Your task to perform on an android device: View the shopping cart on costco. Add "apple airpods pro" to the cart on costco, then select checkout. Image 0: 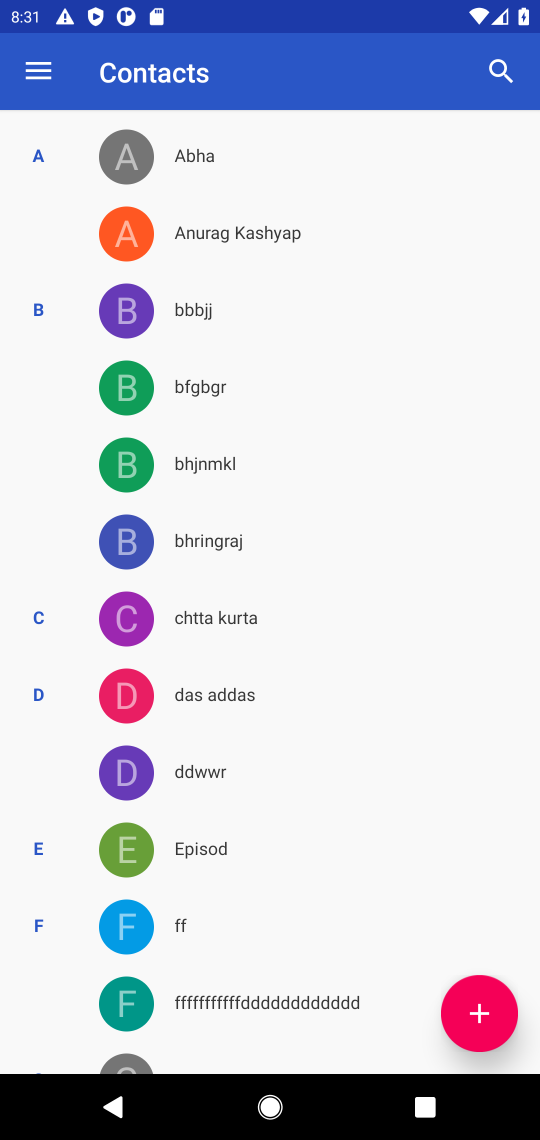
Step 0: press home button
Your task to perform on an android device: View the shopping cart on costco. Add "apple airpods pro" to the cart on costco, then select checkout. Image 1: 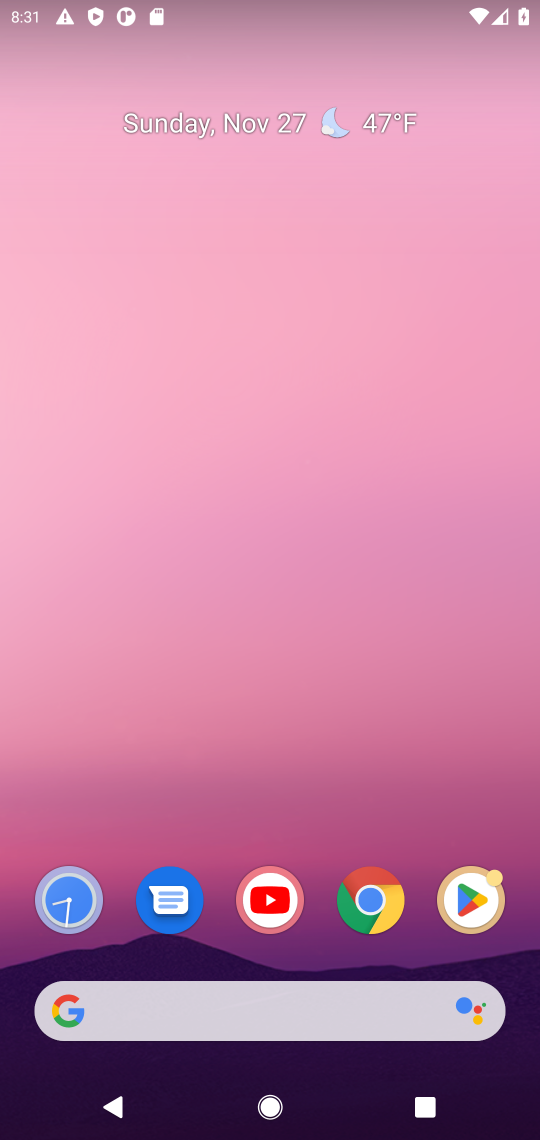
Step 1: click (372, 904)
Your task to perform on an android device: View the shopping cart on costco. Add "apple airpods pro" to the cart on costco, then select checkout. Image 2: 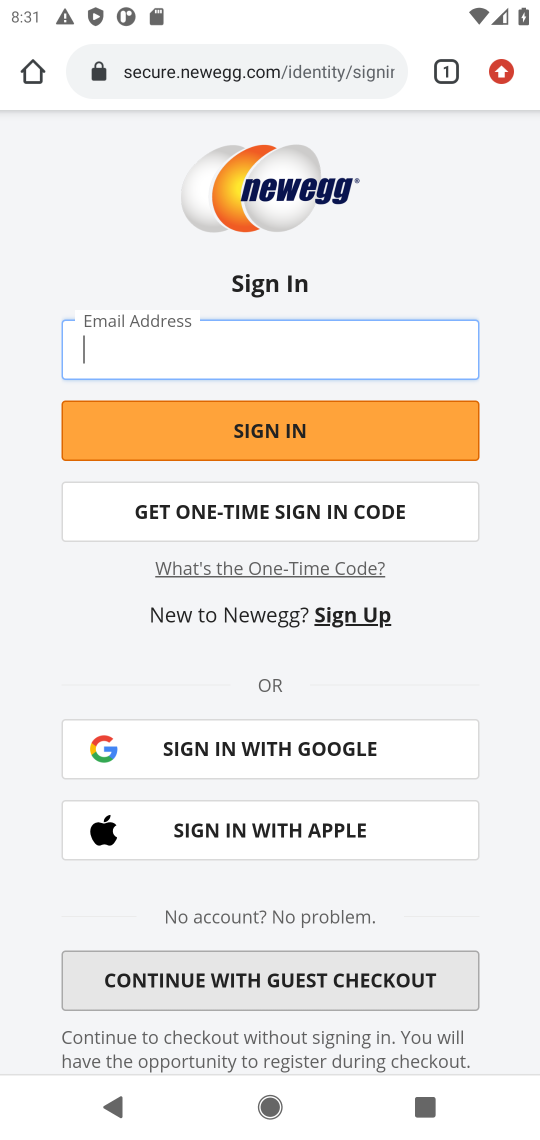
Step 2: click (168, 78)
Your task to perform on an android device: View the shopping cart on costco. Add "apple airpods pro" to the cart on costco, then select checkout. Image 3: 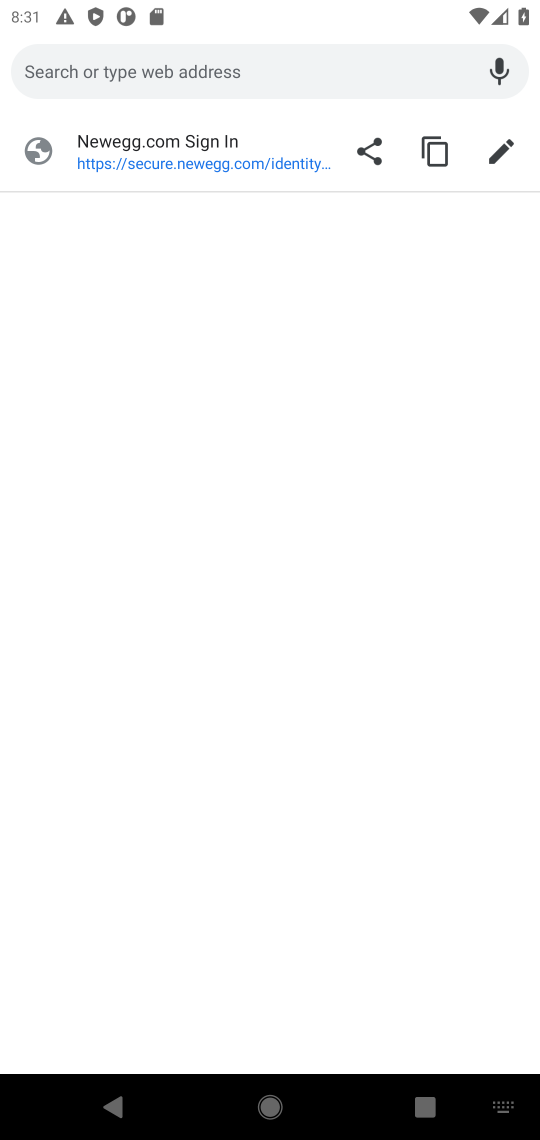
Step 3: type "costco.com"
Your task to perform on an android device: View the shopping cart on costco. Add "apple airpods pro" to the cart on costco, then select checkout. Image 4: 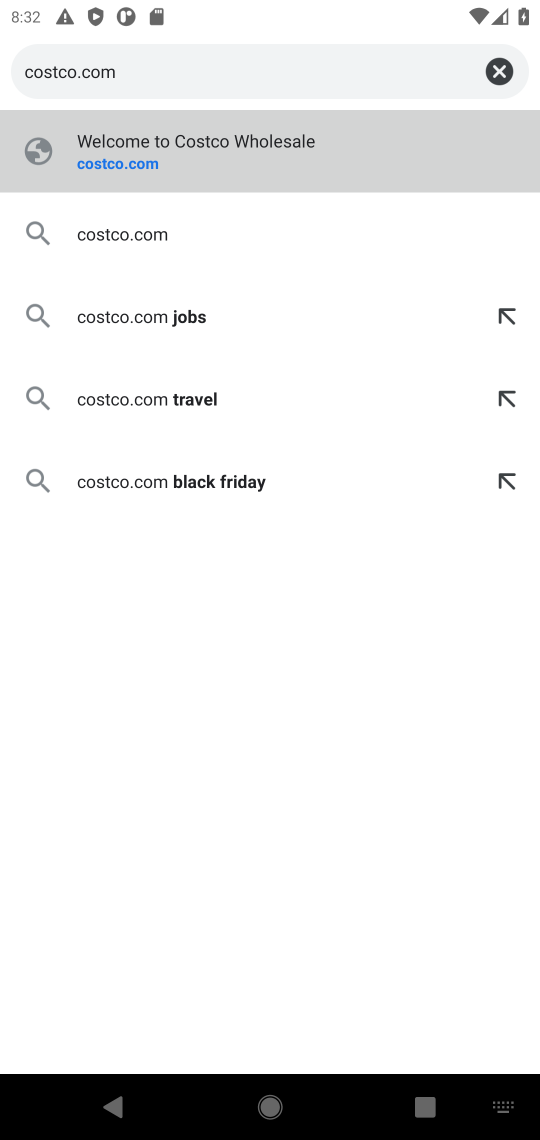
Step 4: click (95, 159)
Your task to perform on an android device: View the shopping cart on costco. Add "apple airpods pro" to the cart on costco, then select checkout. Image 5: 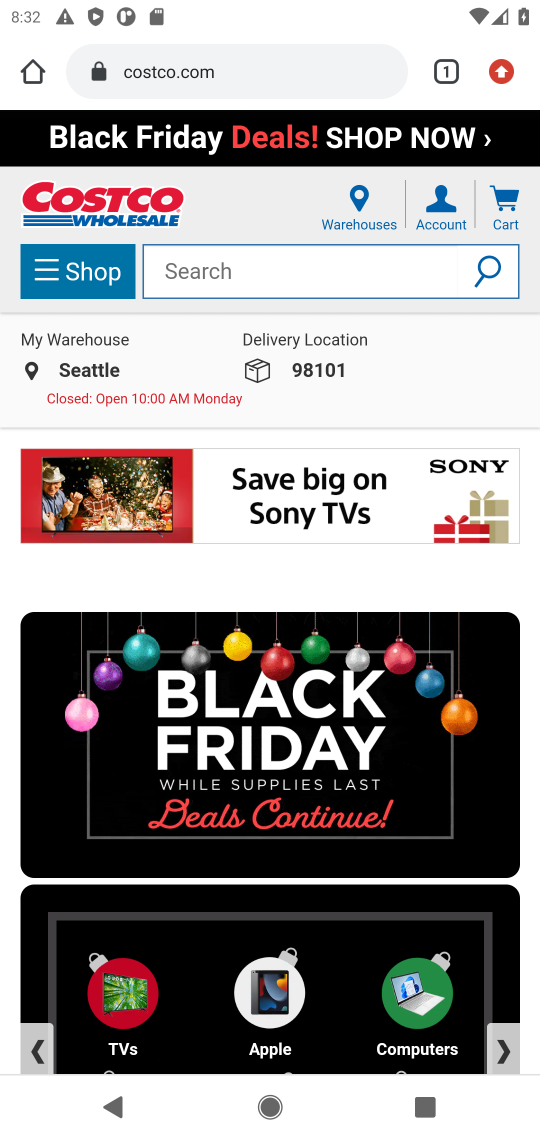
Step 5: click (490, 220)
Your task to perform on an android device: View the shopping cart on costco. Add "apple airpods pro" to the cart on costco, then select checkout. Image 6: 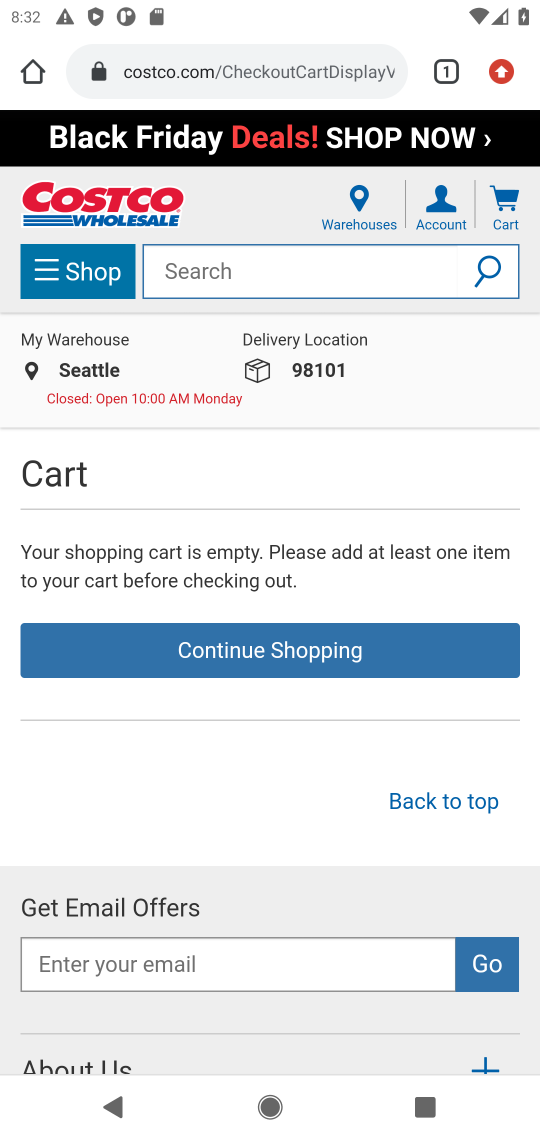
Step 6: click (242, 283)
Your task to perform on an android device: View the shopping cart on costco. Add "apple airpods pro" to the cart on costco, then select checkout. Image 7: 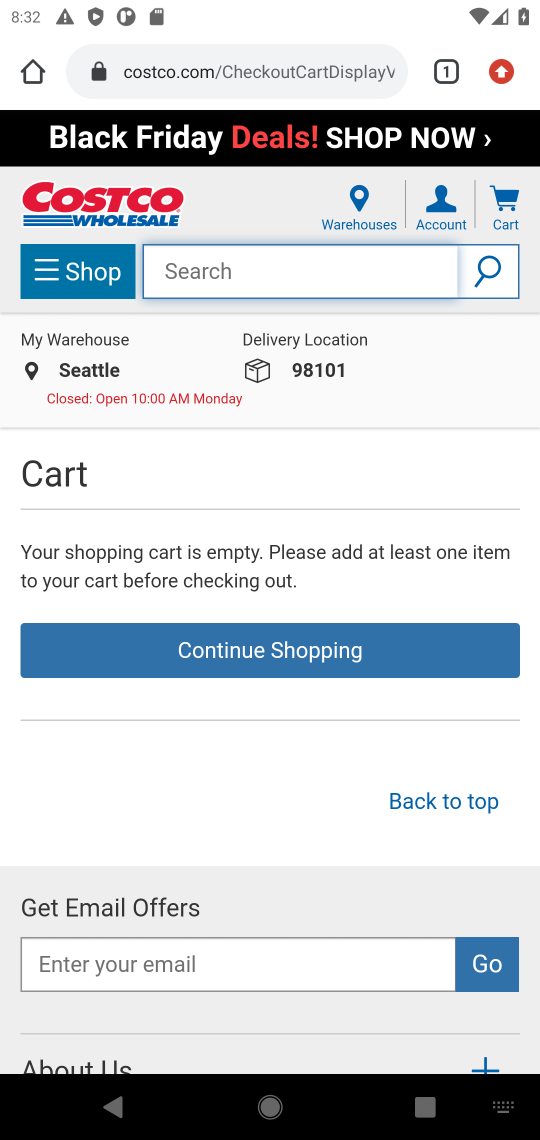
Step 7: type "apple airpods pro"
Your task to perform on an android device: View the shopping cart on costco. Add "apple airpods pro" to the cart on costco, then select checkout. Image 8: 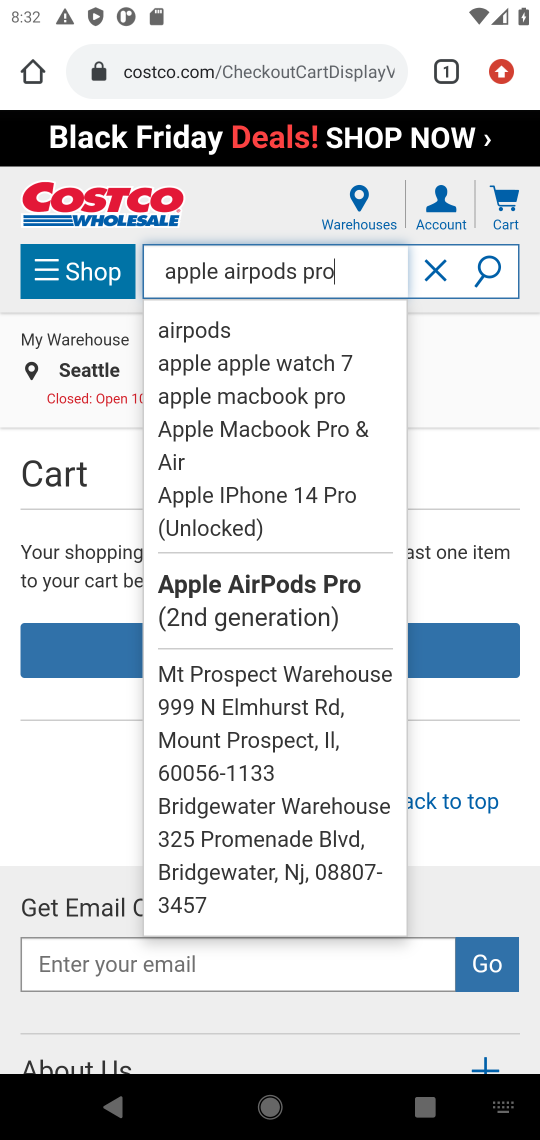
Step 8: click (487, 274)
Your task to perform on an android device: View the shopping cart on costco. Add "apple airpods pro" to the cart on costco, then select checkout. Image 9: 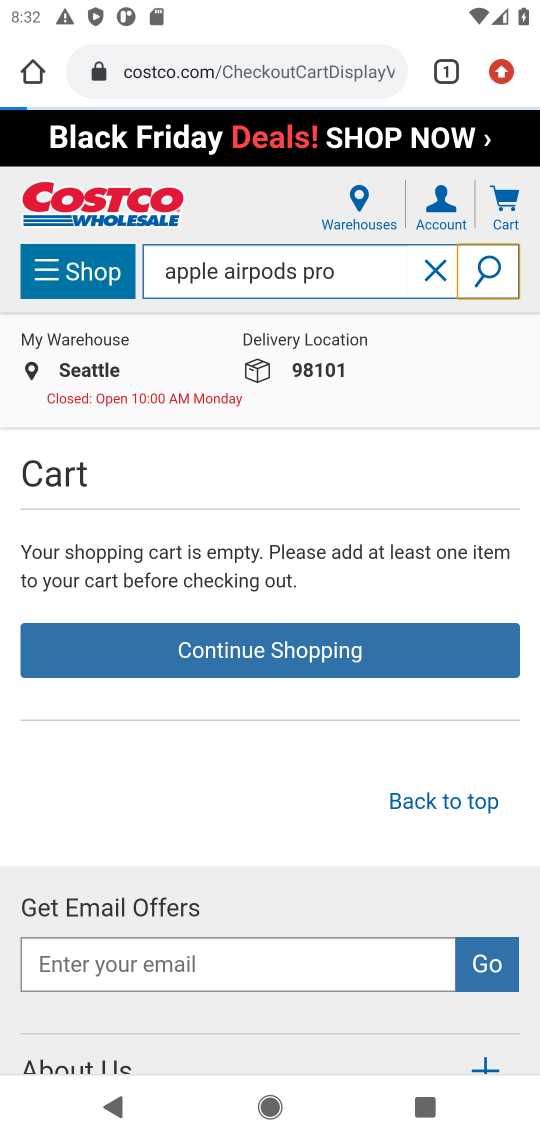
Step 9: click (471, 283)
Your task to perform on an android device: View the shopping cart on costco. Add "apple airpods pro" to the cart on costco, then select checkout. Image 10: 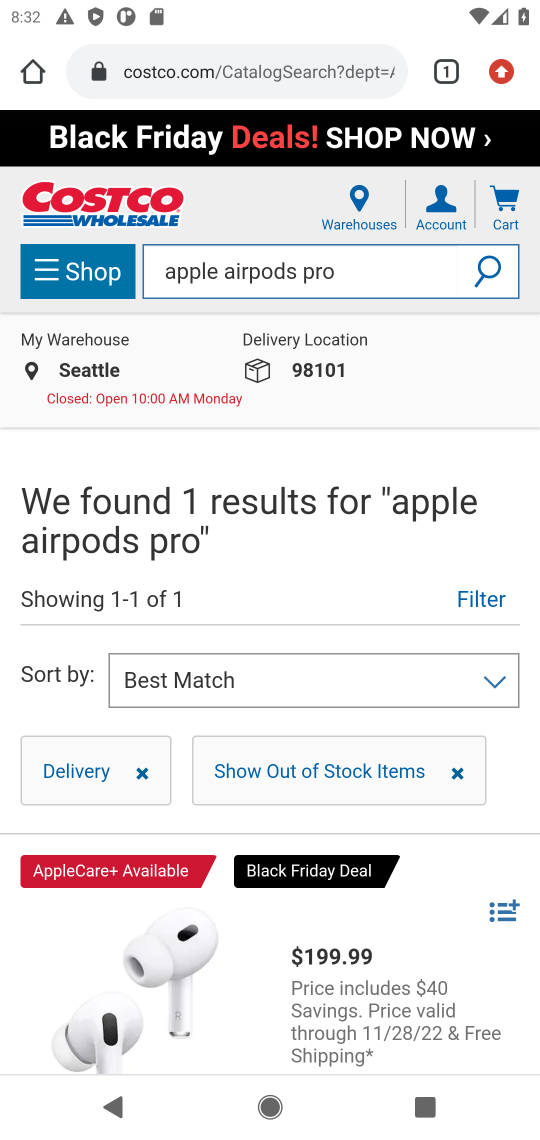
Step 10: drag from (239, 677) to (285, 350)
Your task to perform on an android device: View the shopping cart on costco. Add "apple airpods pro" to the cart on costco, then select checkout. Image 11: 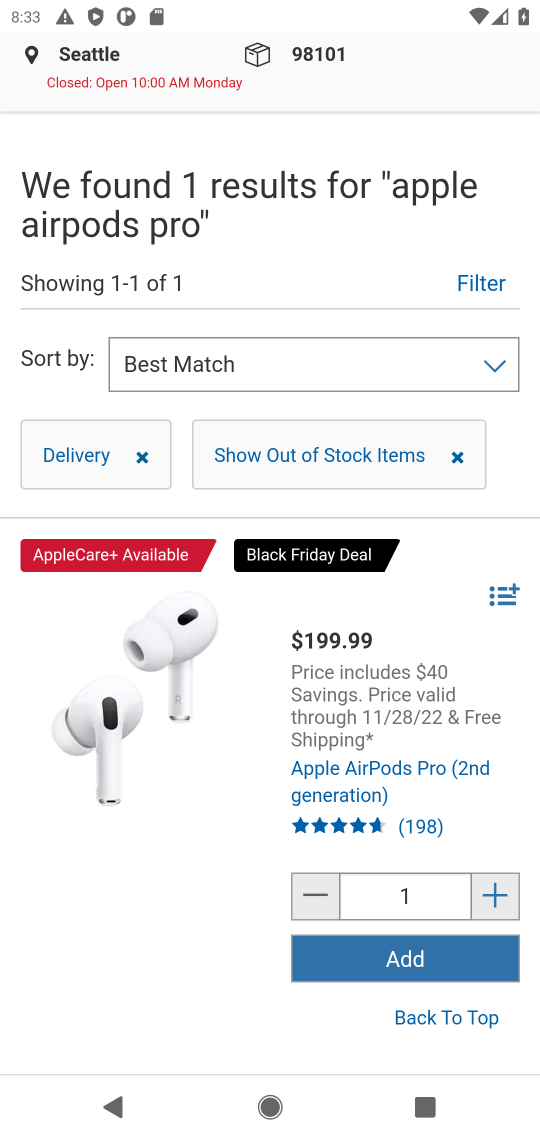
Step 11: click (375, 952)
Your task to perform on an android device: View the shopping cart on costco. Add "apple airpods pro" to the cart on costco, then select checkout. Image 12: 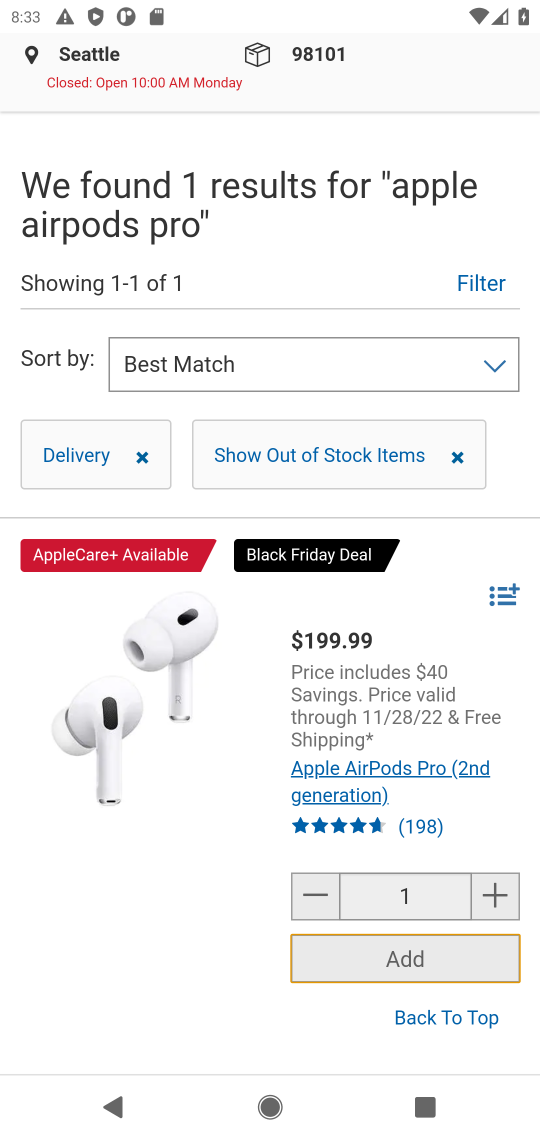
Step 12: drag from (450, 227) to (422, 466)
Your task to perform on an android device: View the shopping cart on costco. Add "apple airpods pro" to the cart on costco, then select checkout. Image 13: 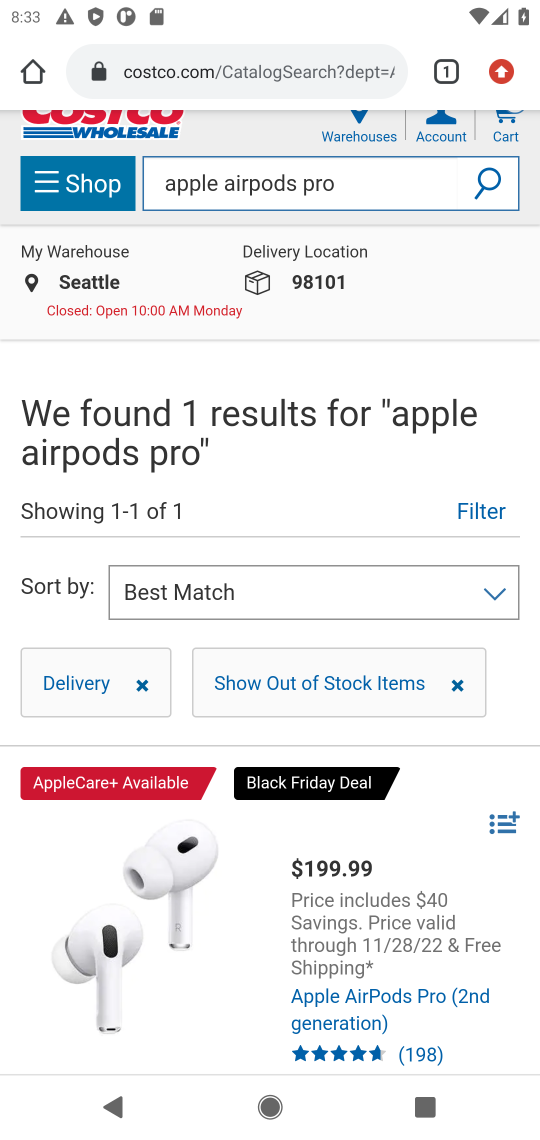
Step 13: drag from (503, 279) to (503, 566)
Your task to perform on an android device: View the shopping cart on costco. Add "apple airpods pro" to the cart on costco, then select checkout. Image 14: 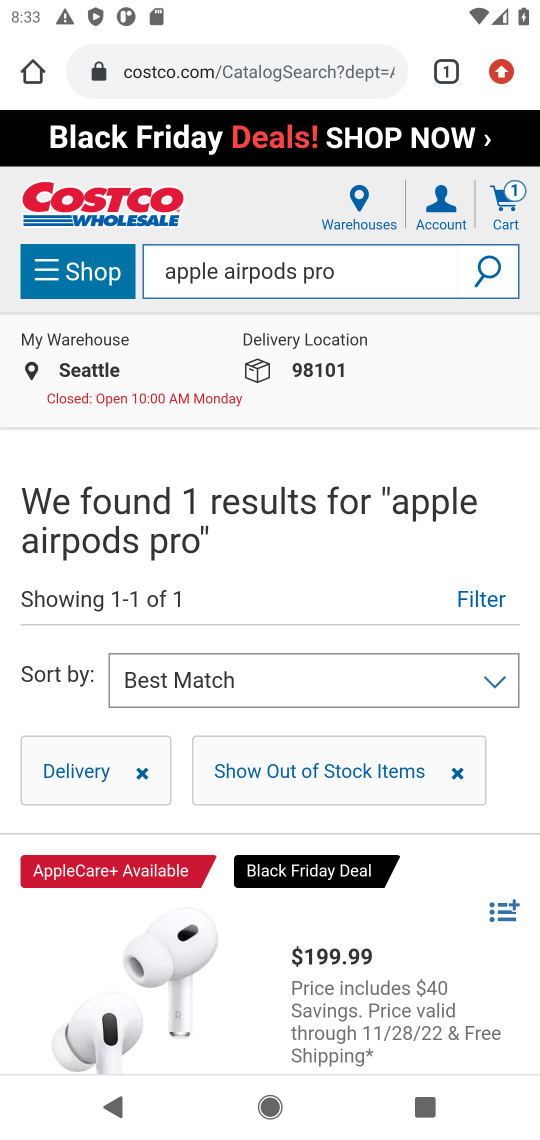
Step 14: click (509, 212)
Your task to perform on an android device: View the shopping cart on costco. Add "apple airpods pro" to the cart on costco, then select checkout. Image 15: 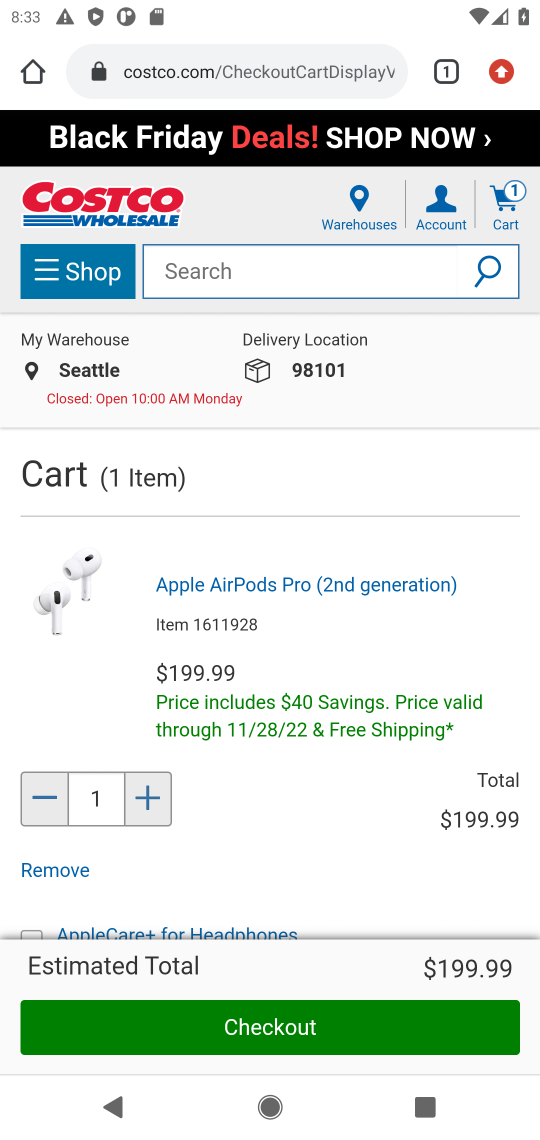
Step 15: drag from (276, 858) to (314, 608)
Your task to perform on an android device: View the shopping cart on costco. Add "apple airpods pro" to the cart on costco, then select checkout. Image 16: 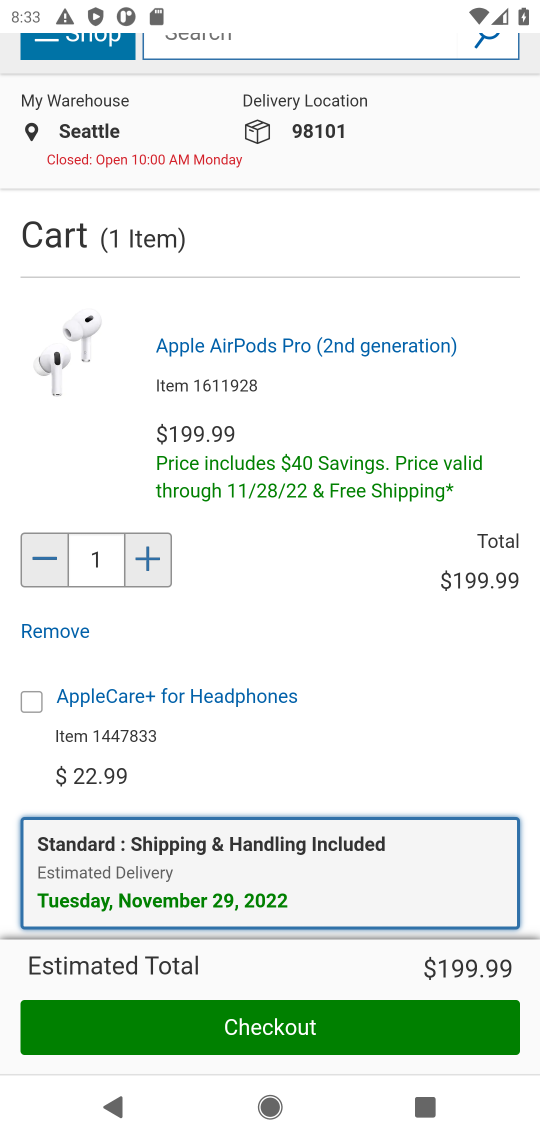
Step 16: click (261, 1032)
Your task to perform on an android device: View the shopping cart on costco. Add "apple airpods pro" to the cart on costco, then select checkout. Image 17: 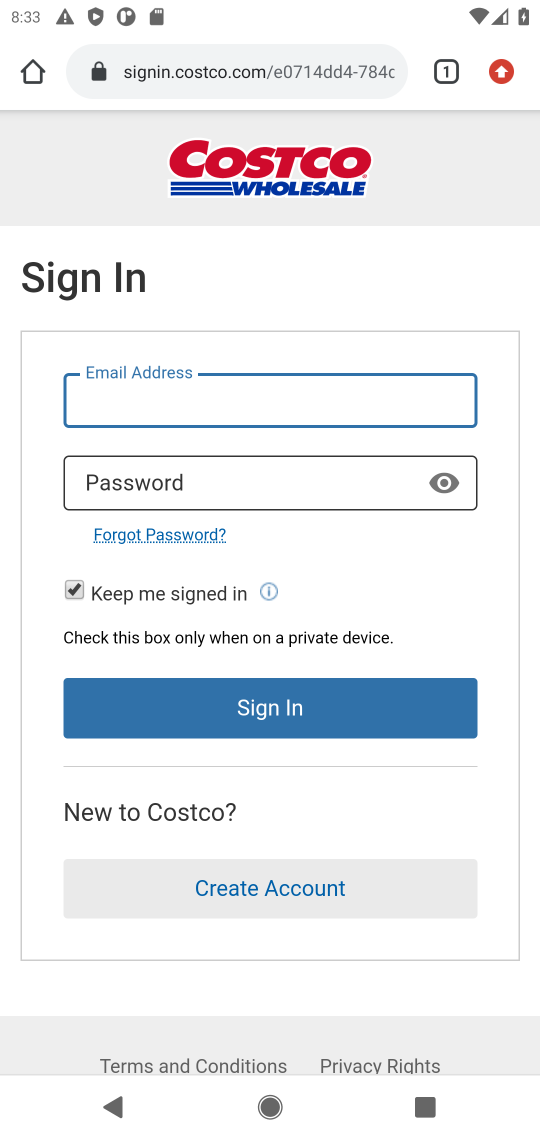
Step 17: task complete